Your task to perform on an android device: Open display settings Image 0: 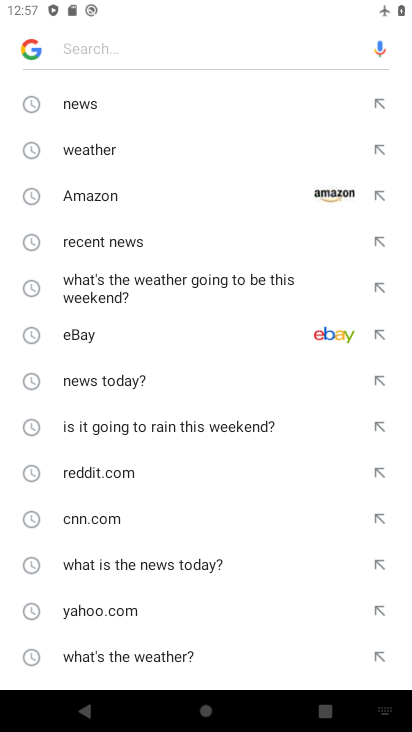
Step 0: press home button
Your task to perform on an android device: Open display settings Image 1: 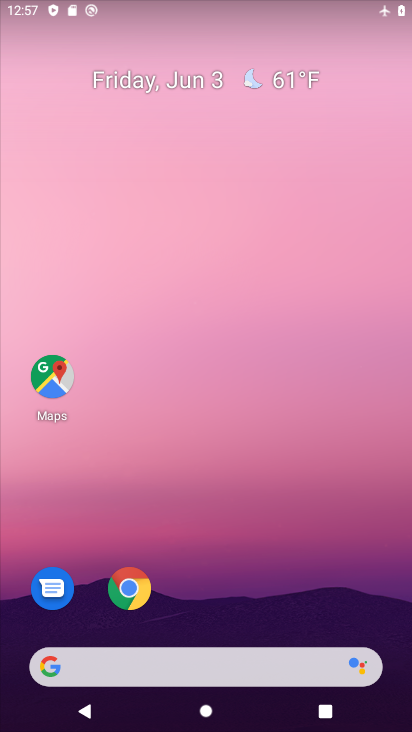
Step 1: drag from (64, 345) to (368, 7)
Your task to perform on an android device: Open display settings Image 2: 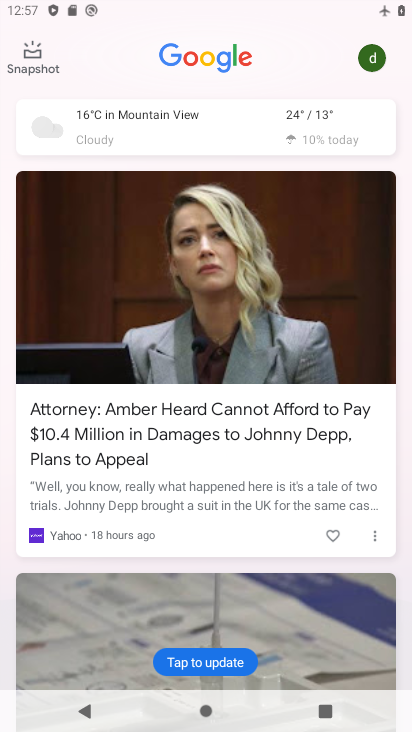
Step 2: press home button
Your task to perform on an android device: Open display settings Image 3: 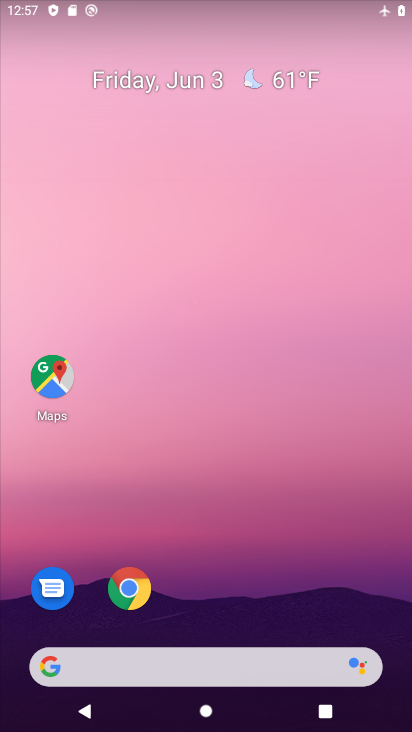
Step 3: drag from (41, 614) to (365, 154)
Your task to perform on an android device: Open display settings Image 4: 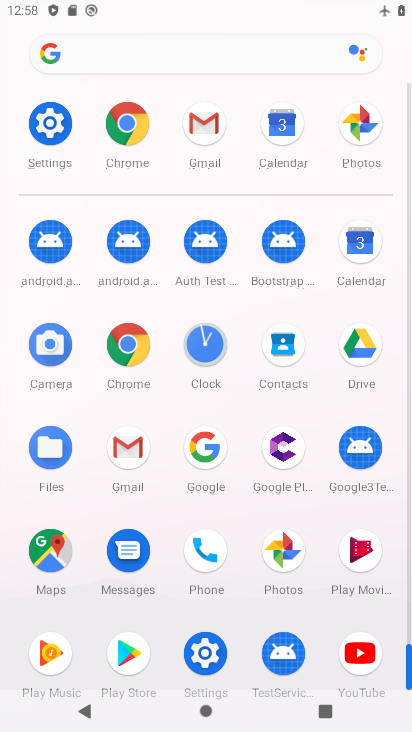
Step 4: click (209, 657)
Your task to perform on an android device: Open display settings Image 5: 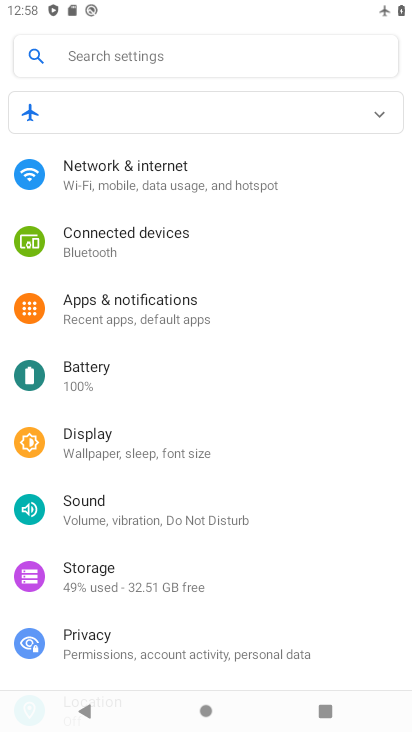
Step 5: click (134, 428)
Your task to perform on an android device: Open display settings Image 6: 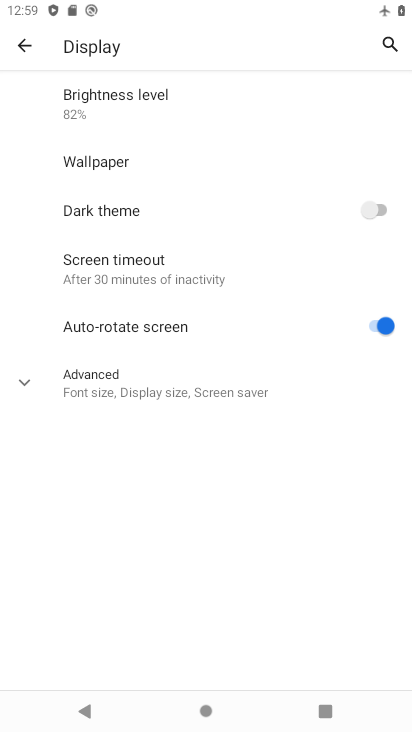
Step 6: task complete